Your task to perform on an android device: Open Reddit.com Image 0: 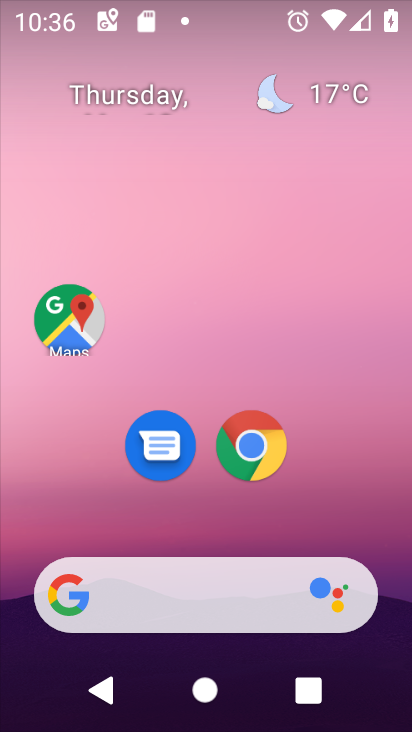
Step 0: drag from (218, 536) to (228, 235)
Your task to perform on an android device: Open Reddit.com Image 1: 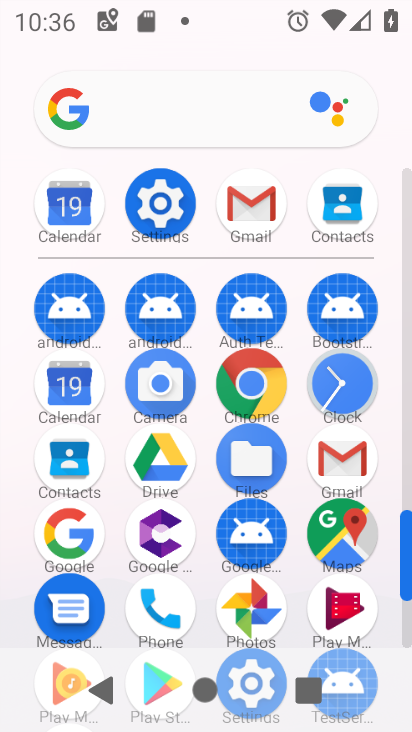
Step 1: click (274, 388)
Your task to perform on an android device: Open Reddit.com Image 2: 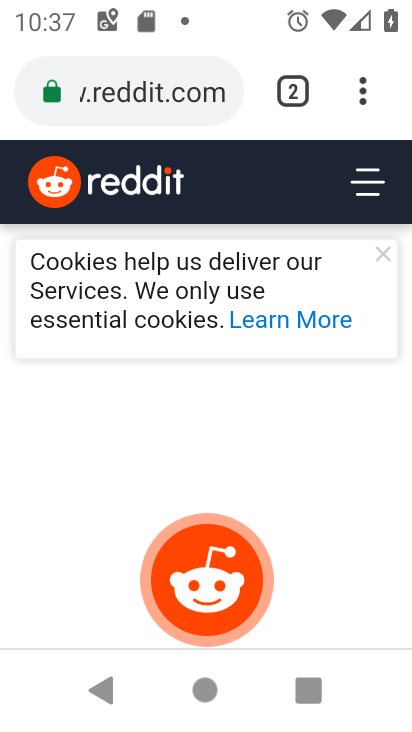
Step 2: task complete